Your task to perform on an android device: open app "Flipkart Online Shopping App" Image 0: 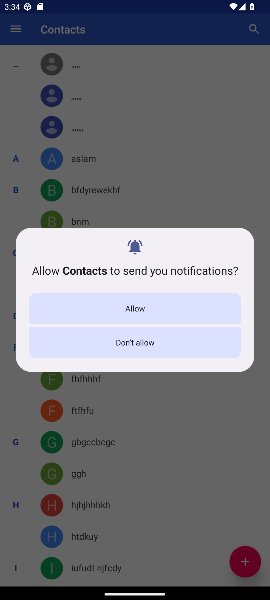
Step 0: press home button
Your task to perform on an android device: open app "Flipkart Online Shopping App" Image 1: 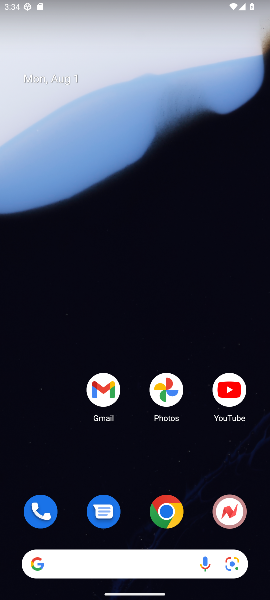
Step 1: drag from (143, 496) to (149, 149)
Your task to perform on an android device: open app "Flipkart Online Shopping App" Image 2: 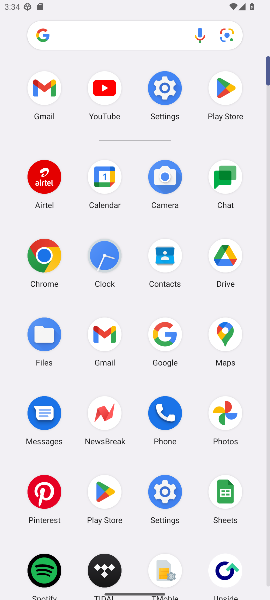
Step 2: click (226, 93)
Your task to perform on an android device: open app "Flipkart Online Shopping App" Image 3: 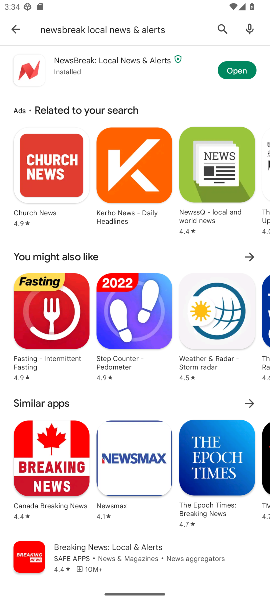
Step 3: click (14, 23)
Your task to perform on an android device: open app "Flipkart Online Shopping App" Image 4: 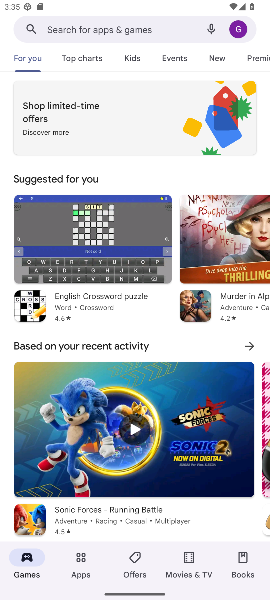
Step 4: click (103, 30)
Your task to perform on an android device: open app "Flipkart Online Shopping App" Image 5: 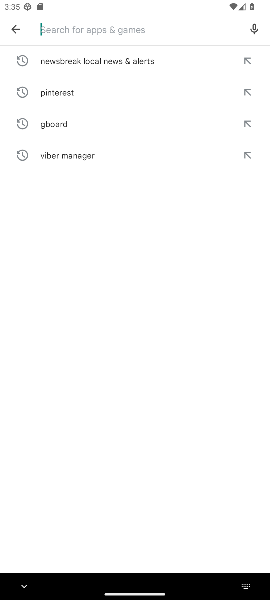
Step 5: type "Flipkart Online Shopping App"
Your task to perform on an android device: open app "Flipkart Online Shopping App" Image 6: 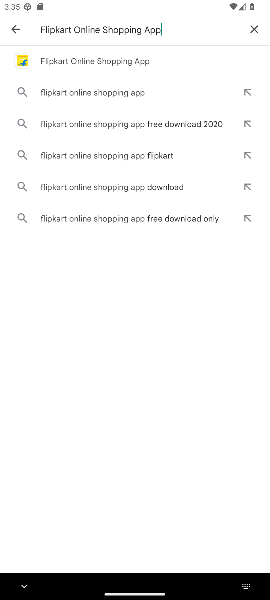
Step 6: click (95, 61)
Your task to perform on an android device: open app "Flipkart Online Shopping App" Image 7: 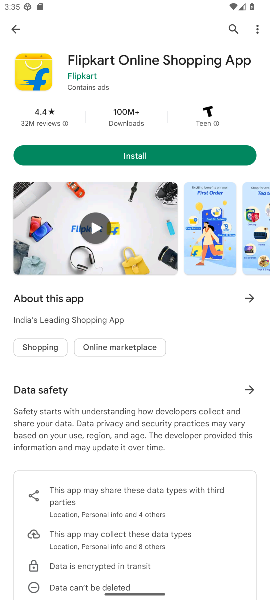
Step 7: click (130, 143)
Your task to perform on an android device: open app "Flipkart Online Shopping App" Image 8: 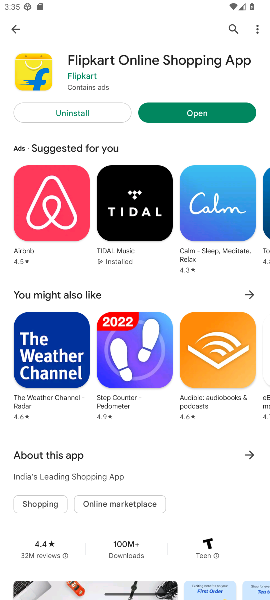
Step 8: click (194, 119)
Your task to perform on an android device: open app "Flipkart Online Shopping App" Image 9: 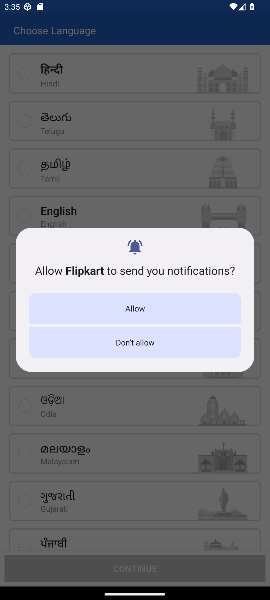
Step 9: click (131, 310)
Your task to perform on an android device: open app "Flipkart Online Shopping App" Image 10: 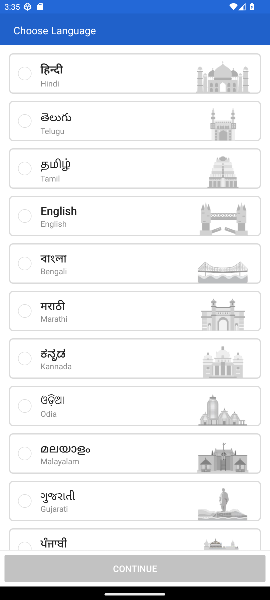
Step 10: click (24, 219)
Your task to perform on an android device: open app "Flipkart Online Shopping App" Image 11: 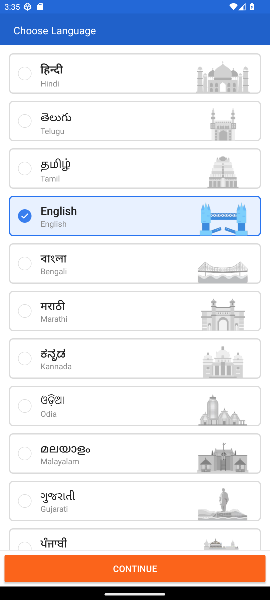
Step 11: click (120, 569)
Your task to perform on an android device: open app "Flipkart Online Shopping App" Image 12: 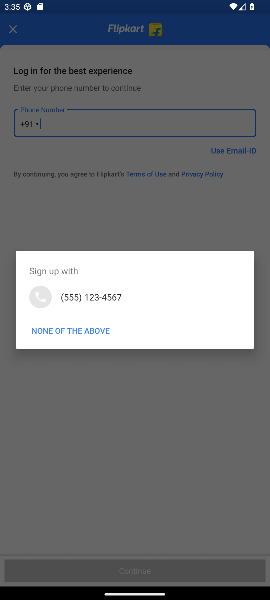
Step 12: task complete